Your task to perform on an android device: change your default location settings in chrome Image 0: 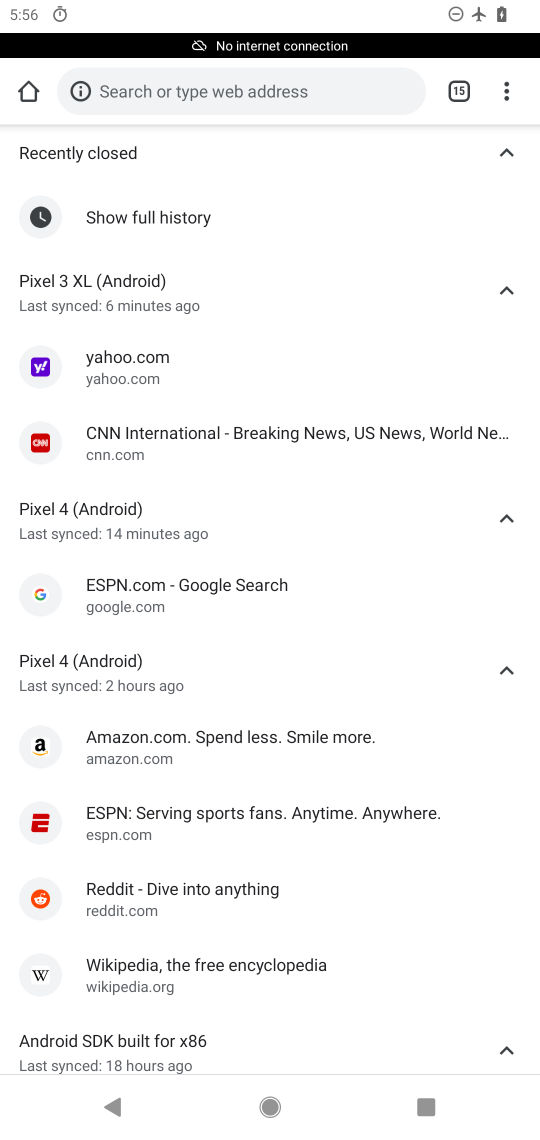
Step 0: click (506, 99)
Your task to perform on an android device: change your default location settings in chrome Image 1: 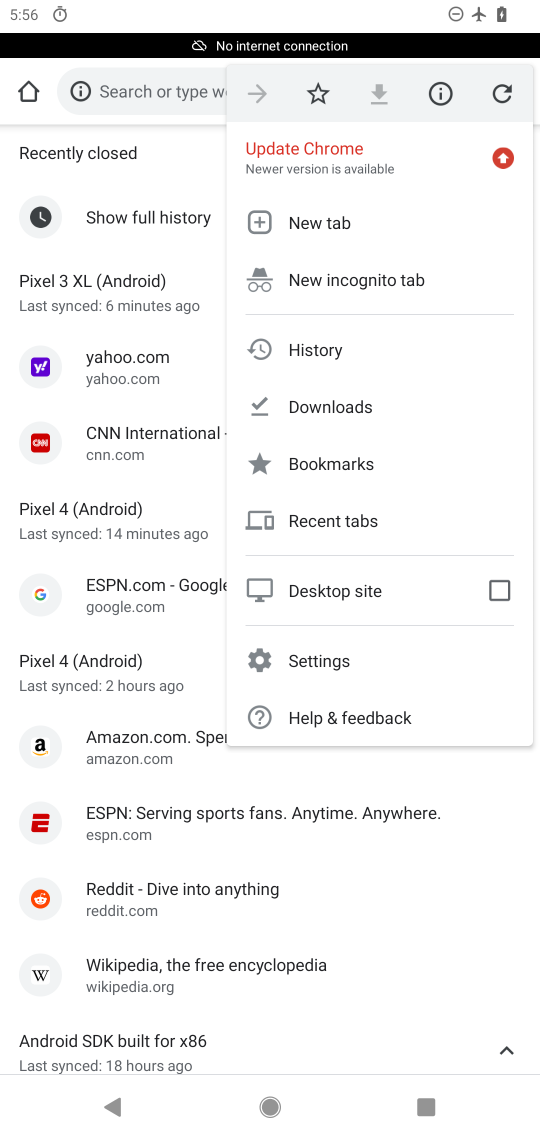
Step 1: click (318, 657)
Your task to perform on an android device: change your default location settings in chrome Image 2: 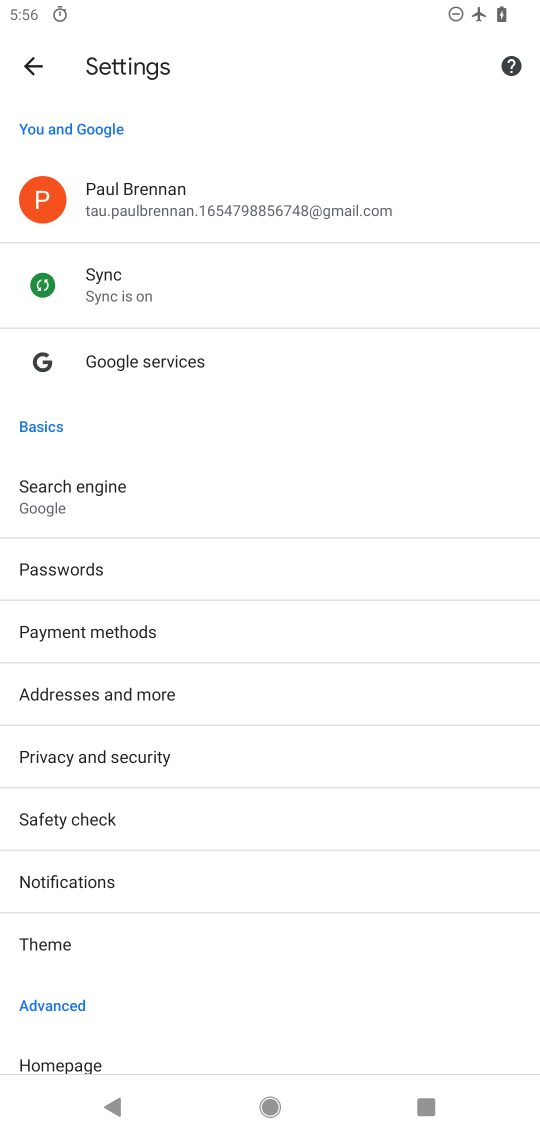
Step 2: drag from (88, 991) to (87, 521)
Your task to perform on an android device: change your default location settings in chrome Image 3: 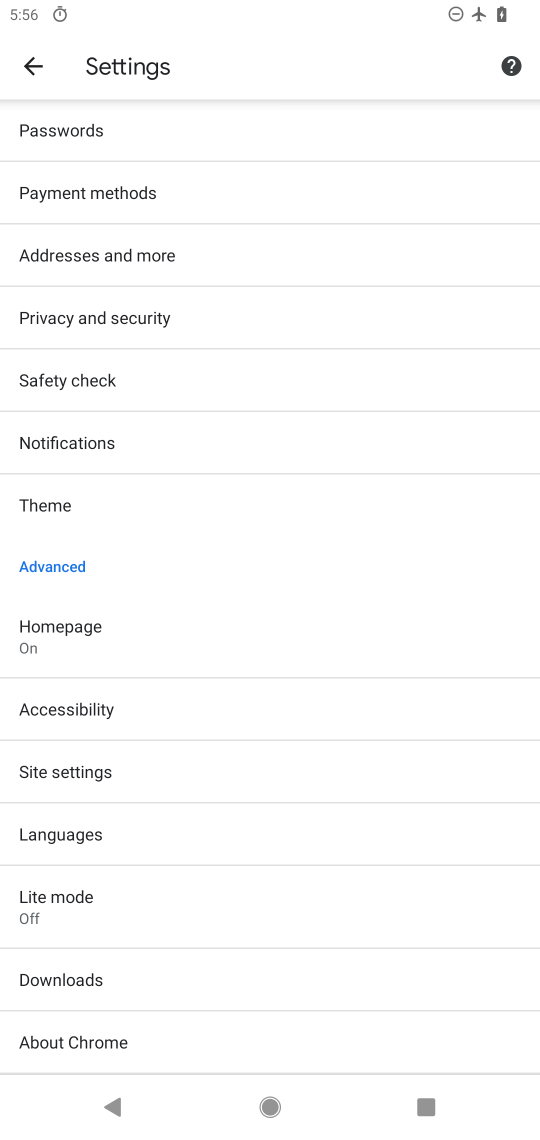
Step 3: click (69, 769)
Your task to perform on an android device: change your default location settings in chrome Image 4: 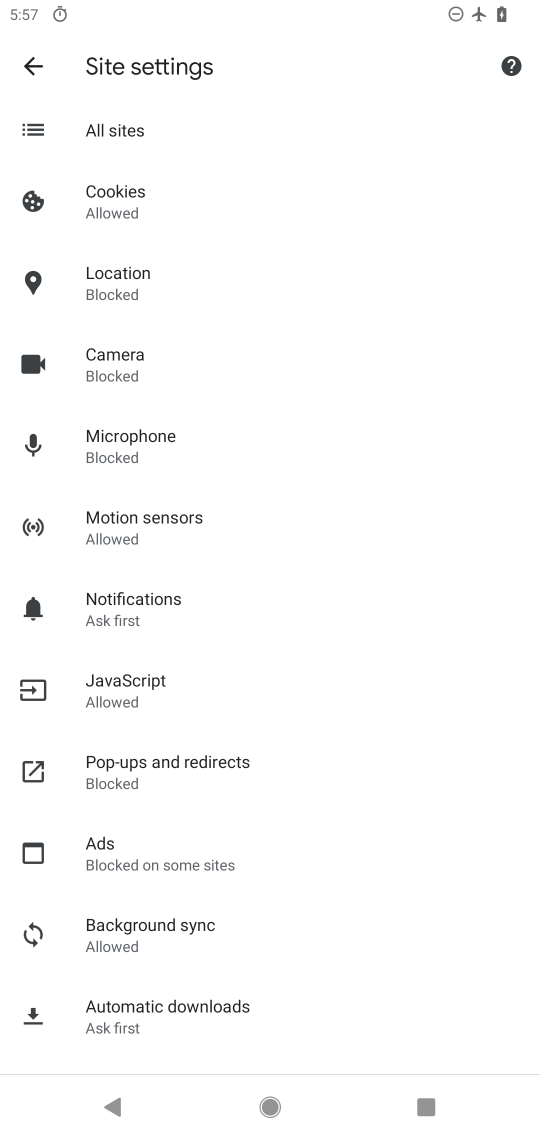
Step 4: click (105, 286)
Your task to perform on an android device: change your default location settings in chrome Image 5: 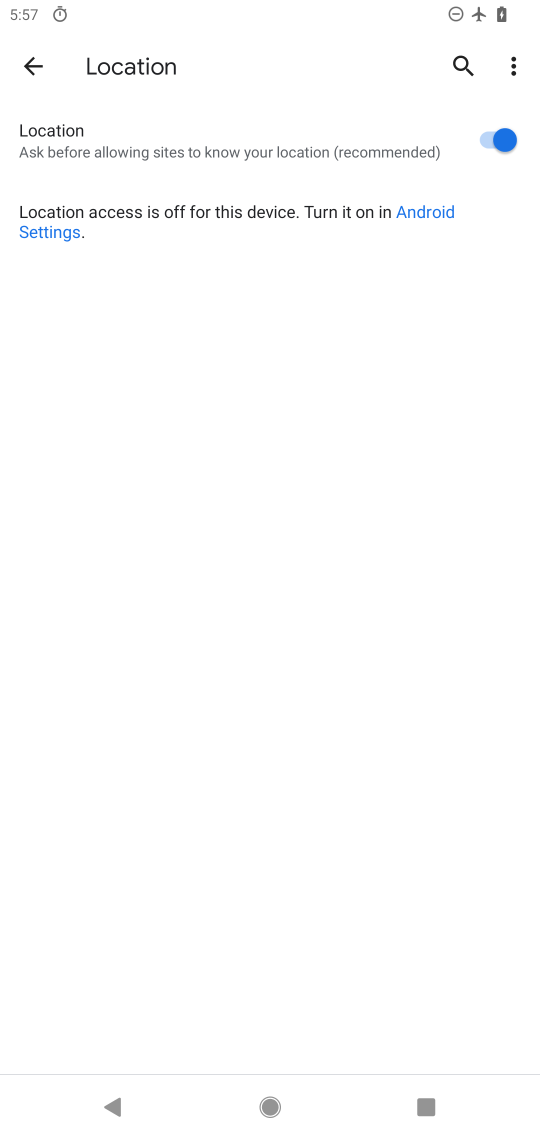
Step 5: click (477, 138)
Your task to perform on an android device: change your default location settings in chrome Image 6: 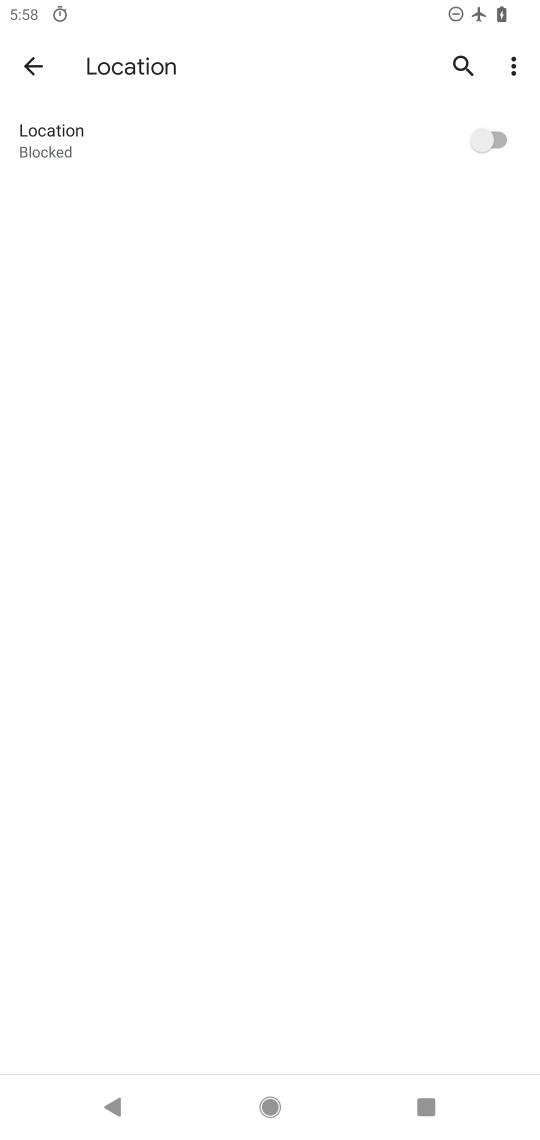
Step 6: task complete